Your task to perform on an android device: Open the phone app and click the voicemail tab. Image 0: 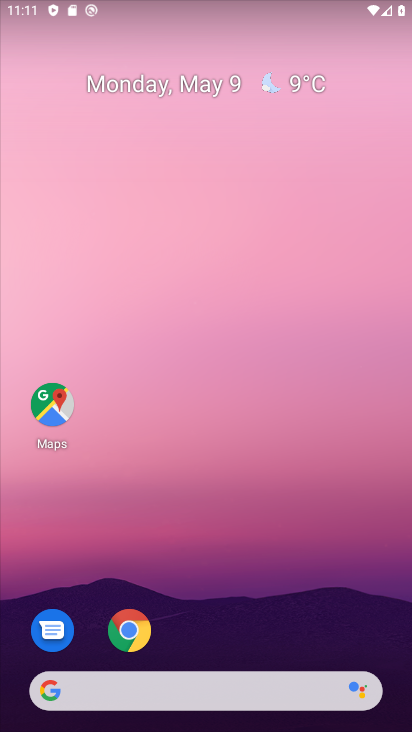
Step 0: drag from (254, 580) to (135, 64)
Your task to perform on an android device: Open the phone app and click the voicemail tab. Image 1: 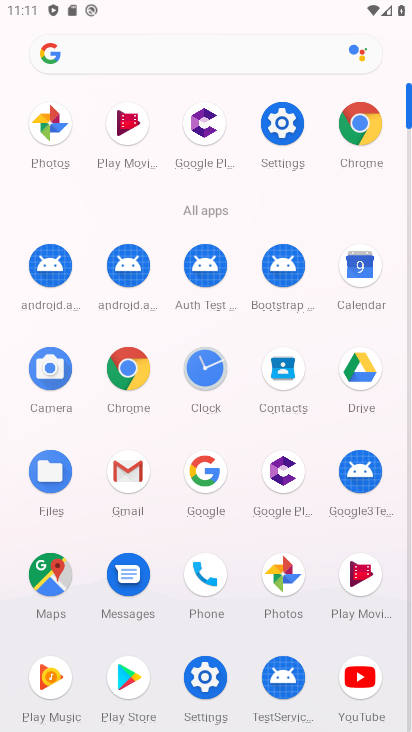
Step 1: click (201, 565)
Your task to perform on an android device: Open the phone app and click the voicemail tab. Image 2: 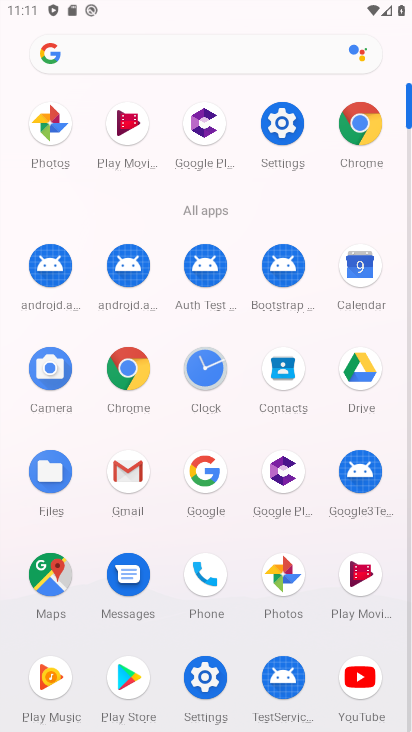
Step 2: click (201, 565)
Your task to perform on an android device: Open the phone app and click the voicemail tab. Image 3: 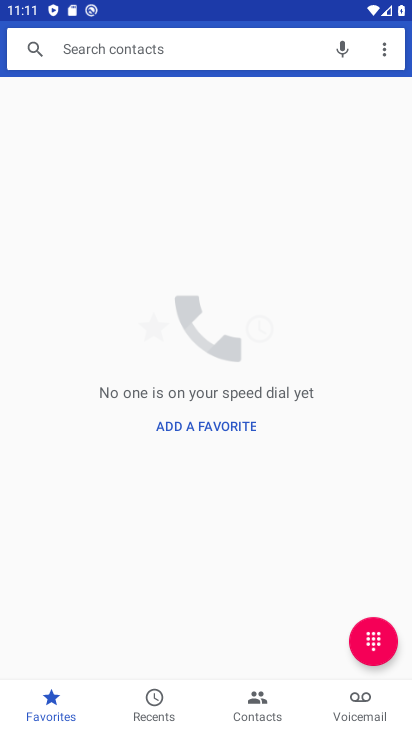
Step 3: click (356, 684)
Your task to perform on an android device: Open the phone app and click the voicemail tab. Image 4: 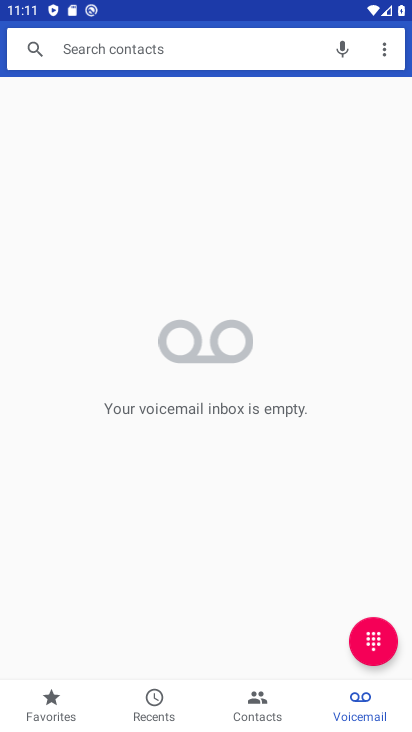
Step 4: click (364, 709)
Your task to perform on an android device: Open the phone app and click the voicemail tab. Image 5: 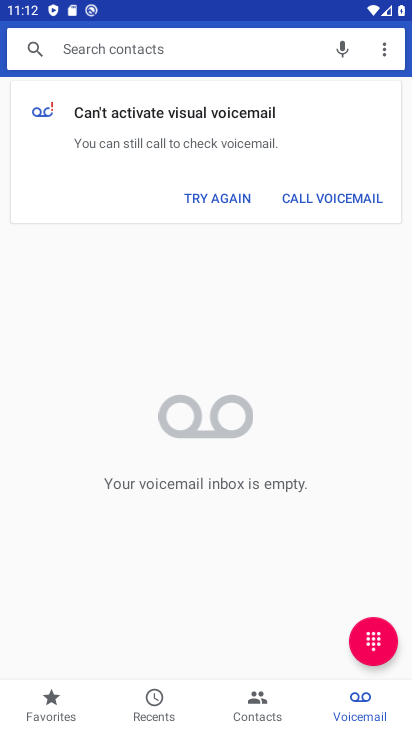
Step 5: click (355, 701)
Your task to perform on an android device: Open the phone app and click the voicemail tab. Image 6: 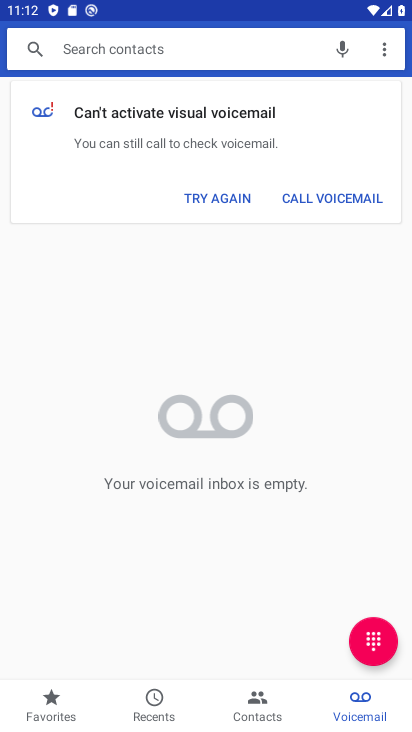
Step 6: click (363, 697)
Your task to perform on an android device: Open the phone app and click the voicemail tab. Image 7: 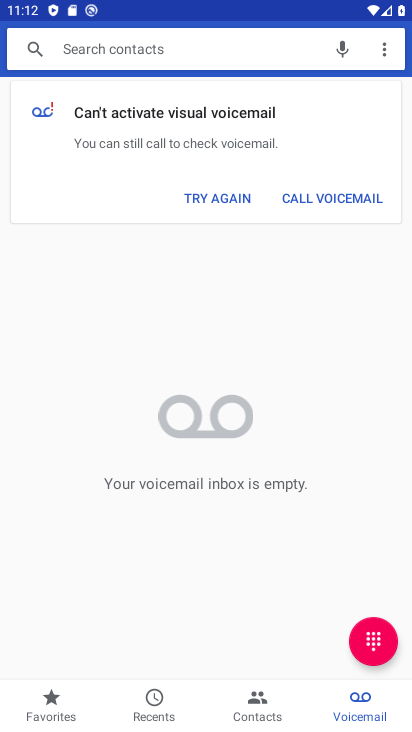
Step 7: click (363, 697)
Your task to perform on an android device: Open the phone app and click the voicemail tab. Image 8: 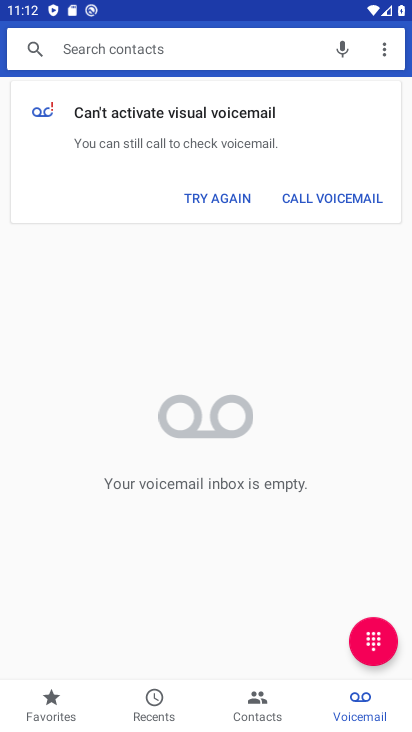
Step 8: click (349, 702)
Your task to perform on an android device: Open the phone app and click the voicemail tab. Image 9: 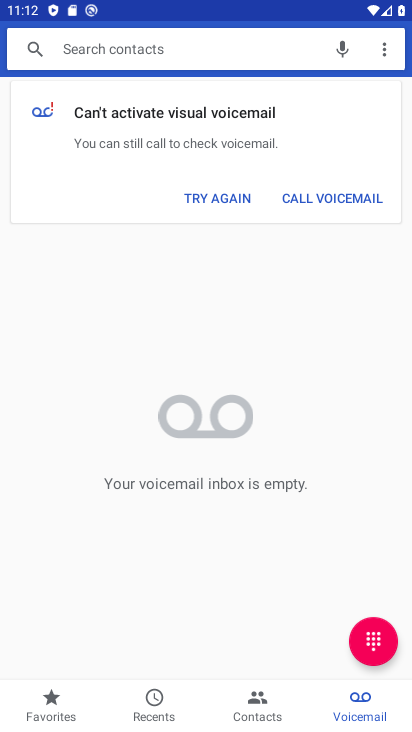
Step 9: click (359, 703)
Your task to perform on an android device: Open the phone app and click the voicemail tab. Image 10: 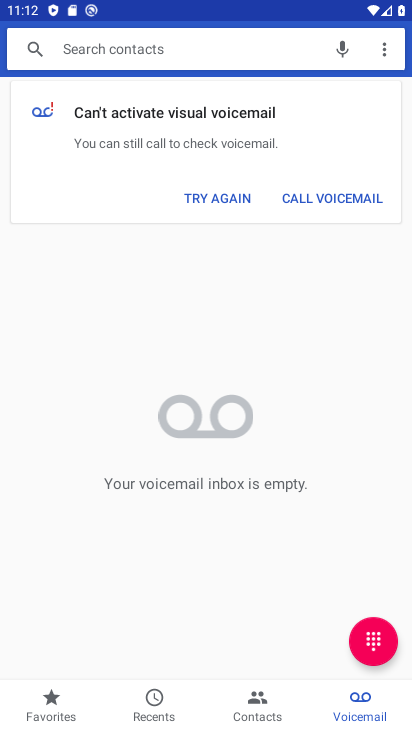
Step 10: task complete